Your task to perform on an android device: Open Amazon Image 0: 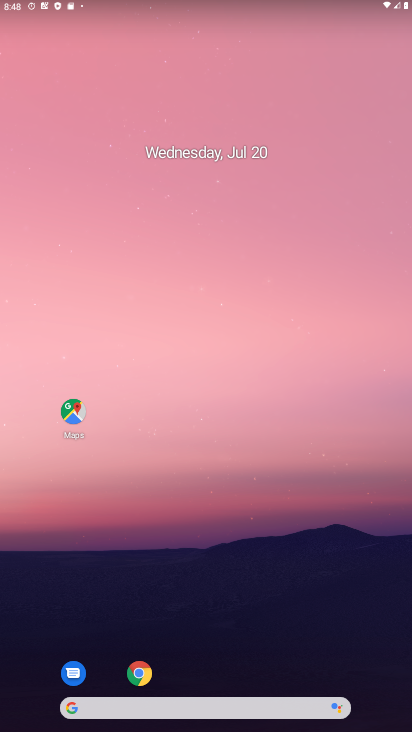
Step 0: drag from (382, 646) to (183, 133)
Your task to perform on an android device: Open Amazon Image 1: 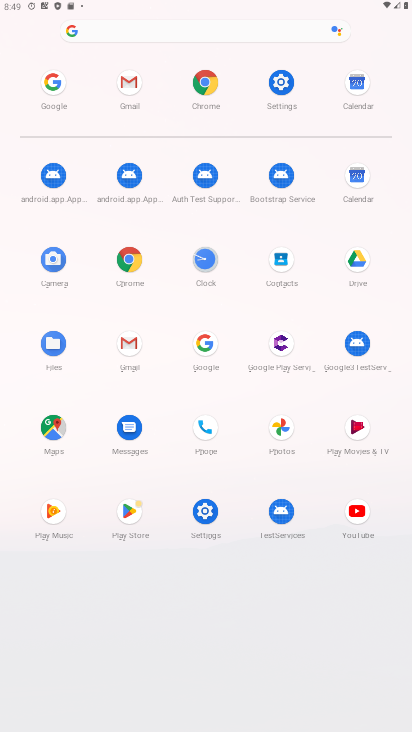
Step 1: click (197, 340)
Your task to perform on an android device: Open Amazon Image 2: 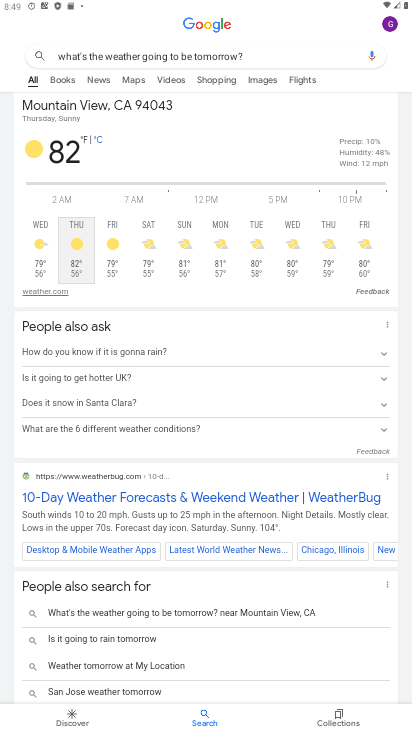
Step 2: press back button
Your task to perform on an android device: Open Amazon Image 3: 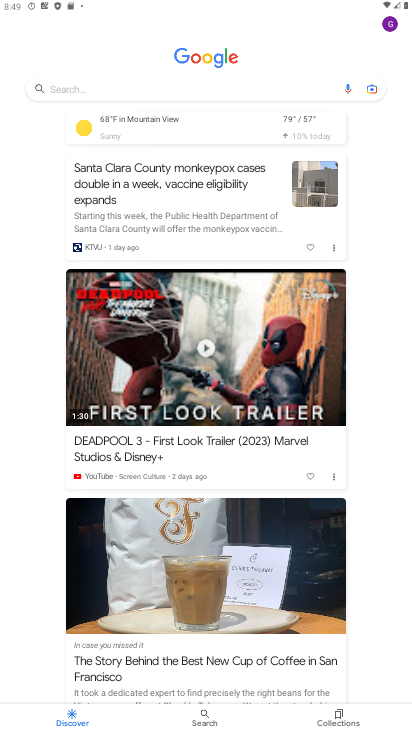
Step 3: click (136, 90)
Your task to perform on an android device: Open Amazon Image 4: 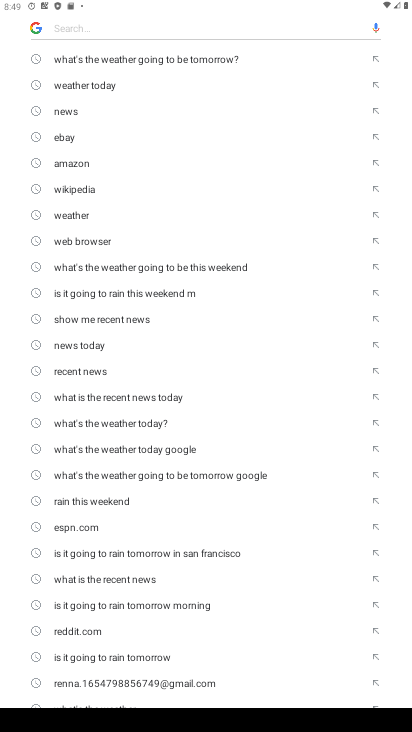
Step 4: click (73, 168)
Your task to perform on an android device: Open Amazon Image 5: 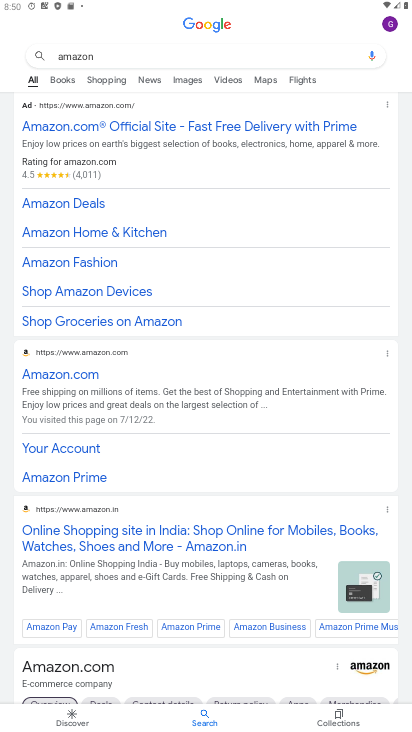
Step 5: task complete